Your task to perform on an android device: turn smart compose on in the gmail app Image 0: 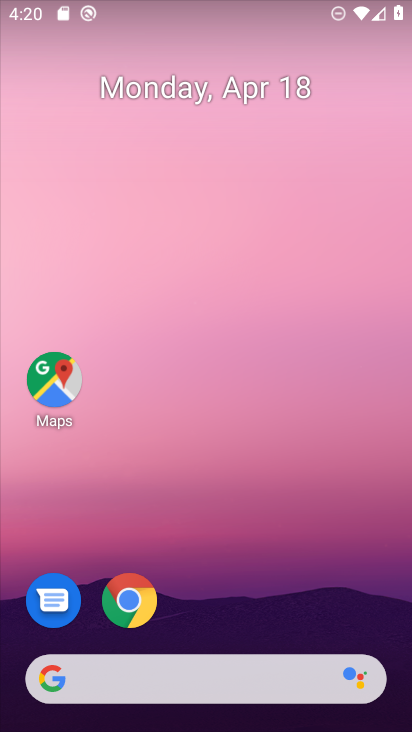
Step 0: drag from (312, 705) to (267, 8)
Your task to perform on an android device: turn smart compose on in the gmail app Image 1: 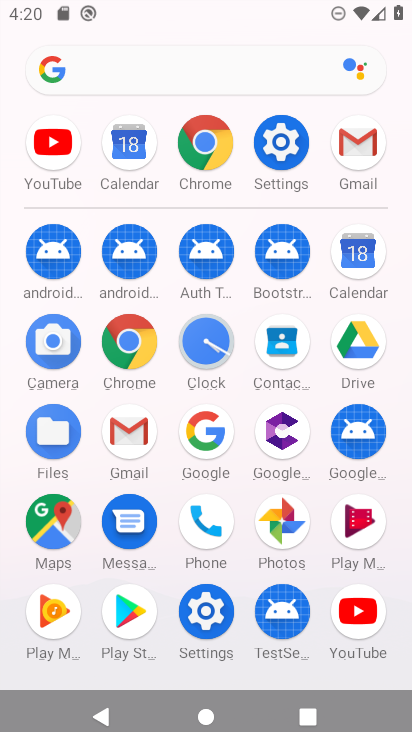
Step 1: click (134, 424)
Your task to perform on an android device: turn smart compose on in the gmail app Image 2: 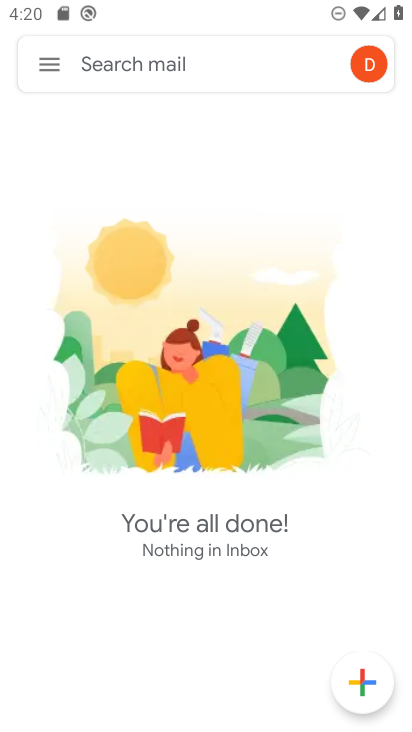
Step 2: click (55, 66)
Your task to perform on an android device: turn smart compose on in the gmail app Image 3: 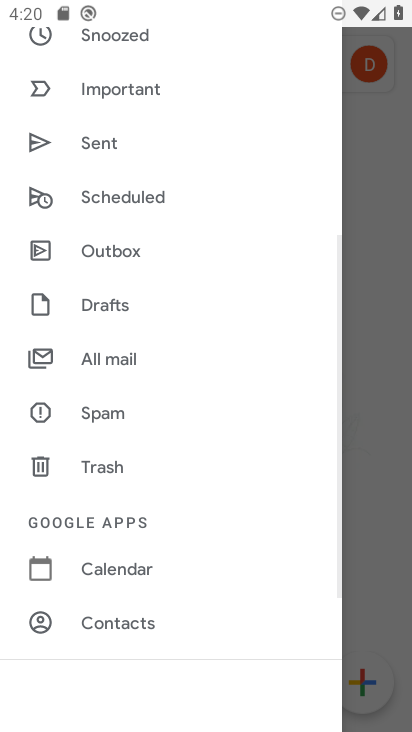
Step 3: drag from (122, 562) to (135, 378)
Your task to perform on an android device: turn smart compose on in the gmail app Image 4: 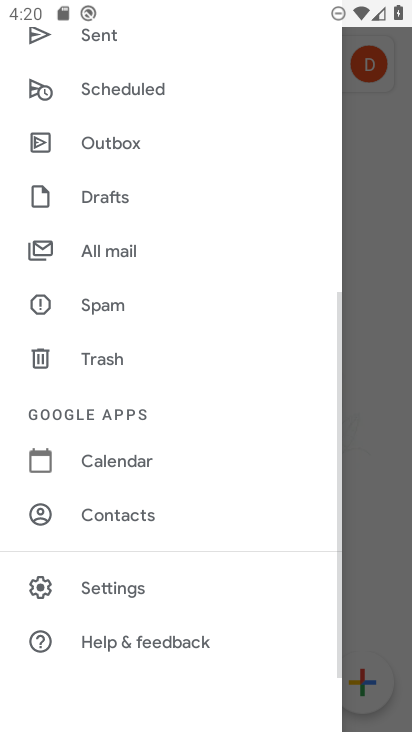
Step 4: click (124, 578)
Your task to perform on an android device: turn smart compose on in the gmail app Image 5: 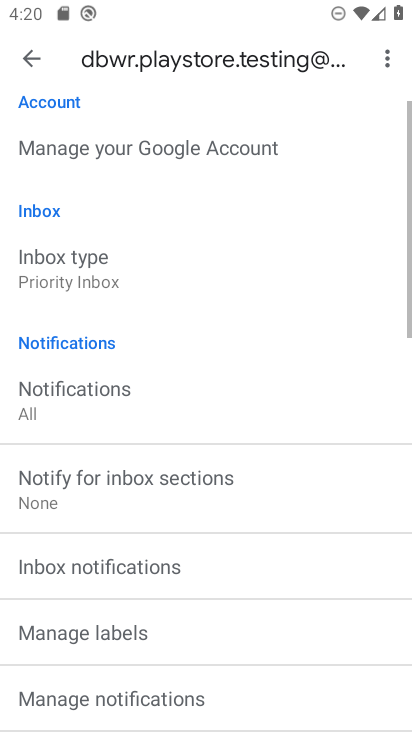
Step 5: drag from (247, 270) to (265, 77)
Your task to perform on an android device: turn smart compose on in the gmail app Image 6: 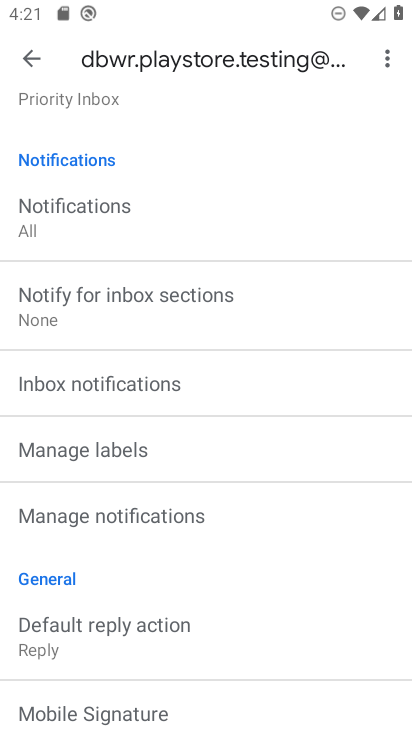
Step 6: drag from (257, 576) to (305, 274)
Your task to perform on an android device: turn smart compose on in the gmail app Image 7: 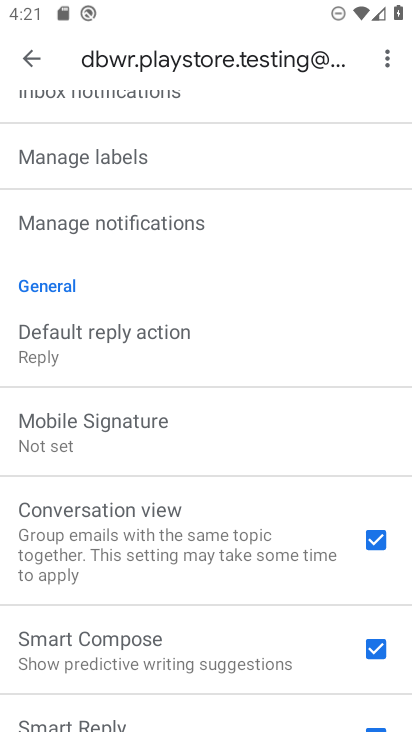
Step 7: click (376, 649)
Your task to perform on an android device: turn smart compose on in the gmail app Image 8: 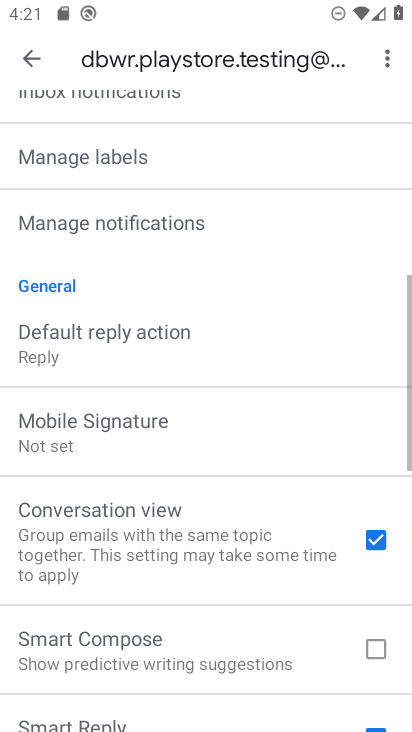
Step 8: click (387, 620)
Your task to perform on an android device: turn smart compose on in the gmail app Image 9: 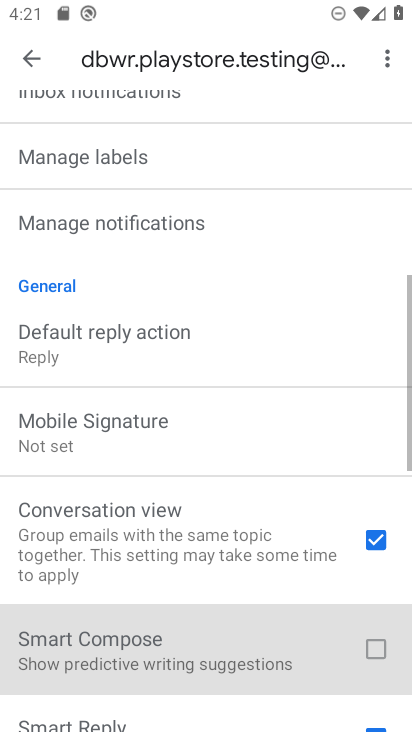
Step 9: task complete